Your task to perform on an android device: Do I have any events this weekend? Image 0: 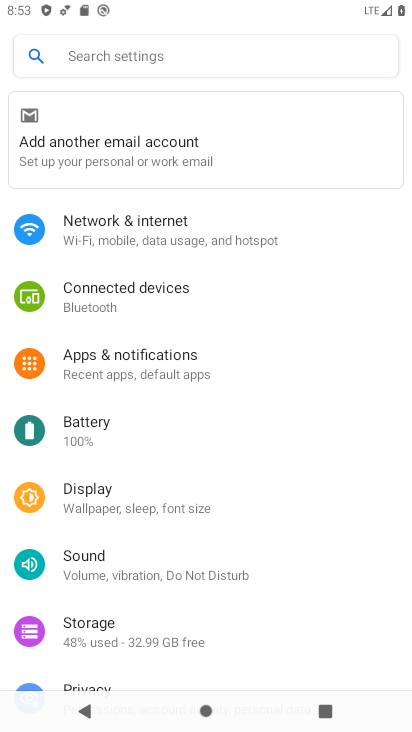
Step 0: press home button
Your task to perform on an android device: Do I have any events this weekend? Image 1: 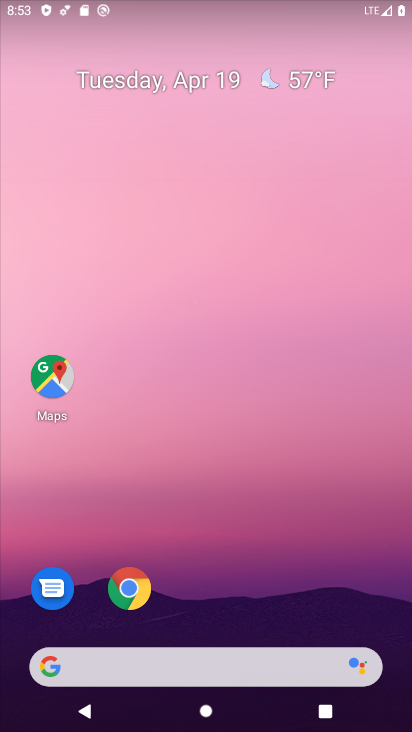
Step 1: drag from (229, 622) to (247, 4)
Your task to perform on an android device: Do I have any events this weekend? Image 2: 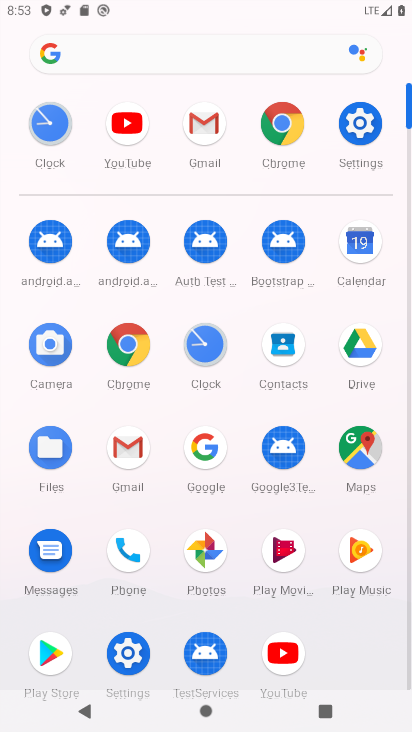
Step 2: click (370, 247)
Your task to perform on an android device: Do I have any events this weekend? Image 3: 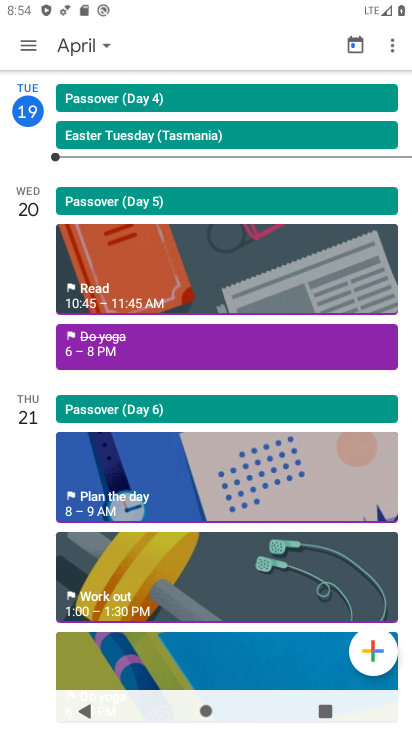
Step 3: click (83, 44)
Your task to perform on an android device: Do I have any events this weekend? Image 4: 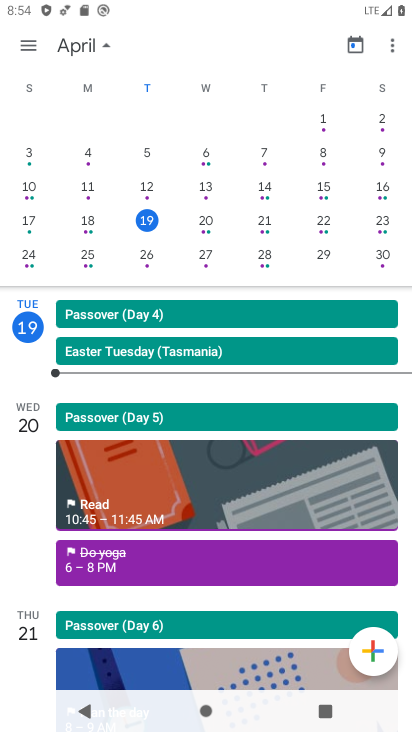
Step 4: click (390, 230)
Your task to perform on an android device: Do I have any events this weekend? Image 5: 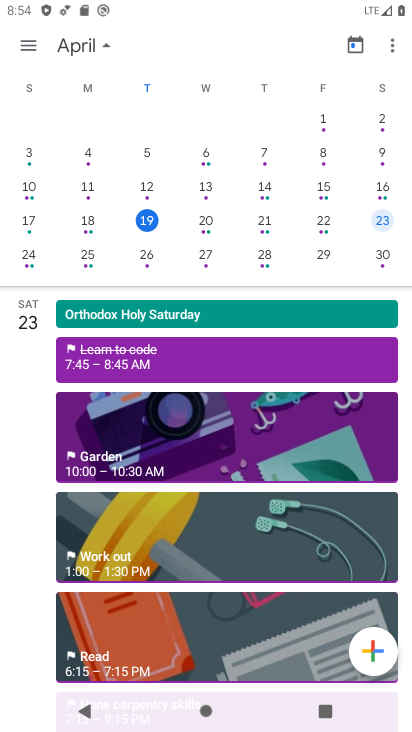
Step 5: click (38, 267)
Your task to perform on an android device: Do I have any events this weekend? Image 6: 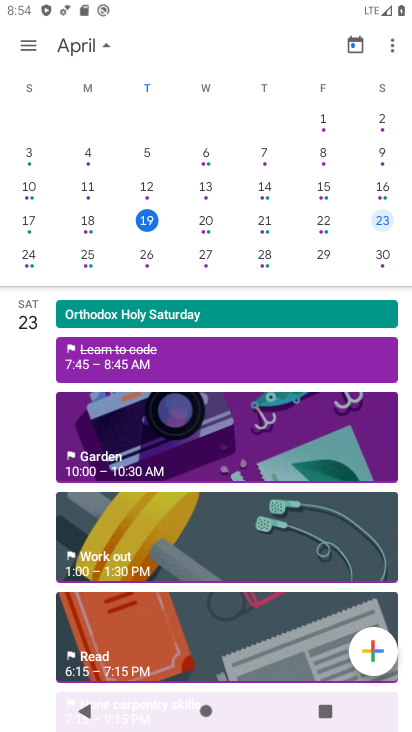
Step 6: click (40, 261)
Your task to perform on an android device: Do I have any events this weekend? Image 7: 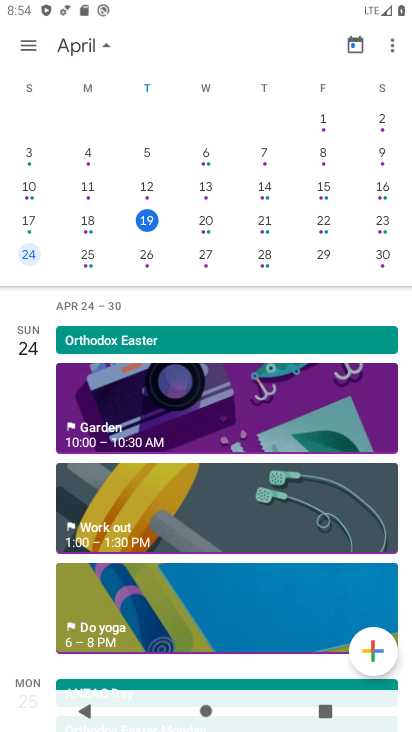
Step 7: task complete